Your task to perform on an android device: Open the stopwatch Image 0: 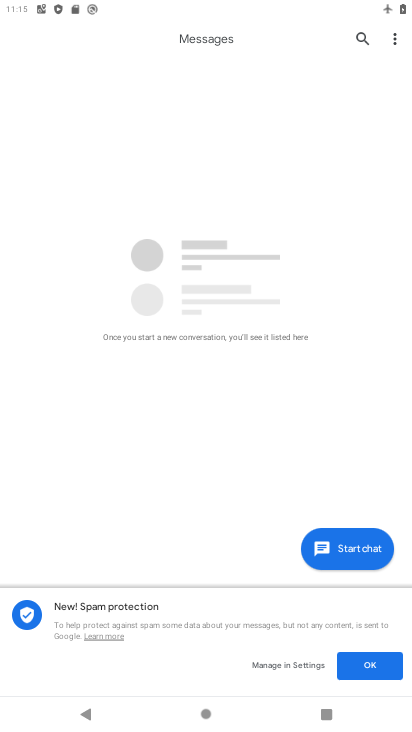
Step 0: press home button
Your task to perform on an android device: Open the stopwatch Image 1: 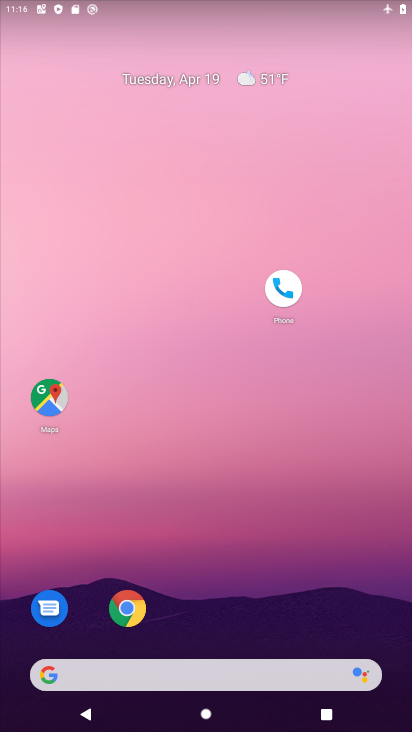
Step 1: drag from (186, 632) to (202, 89)
Your task to perform on an android device: Open the stopwatch Image 2: 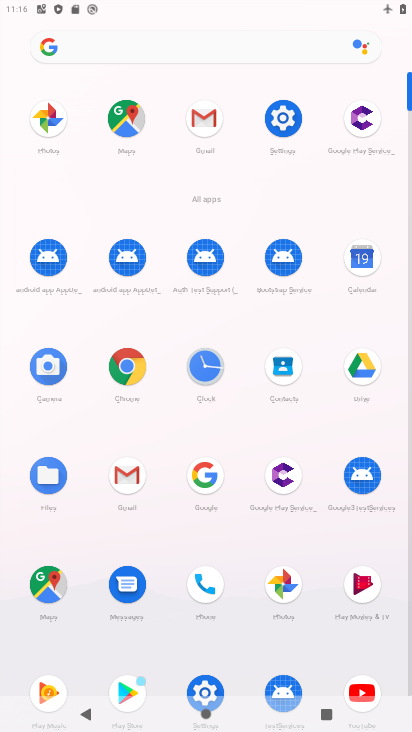
Step 2: click (203, 361)
Your task to perform on an android device: Open the stopwatch Image 3: 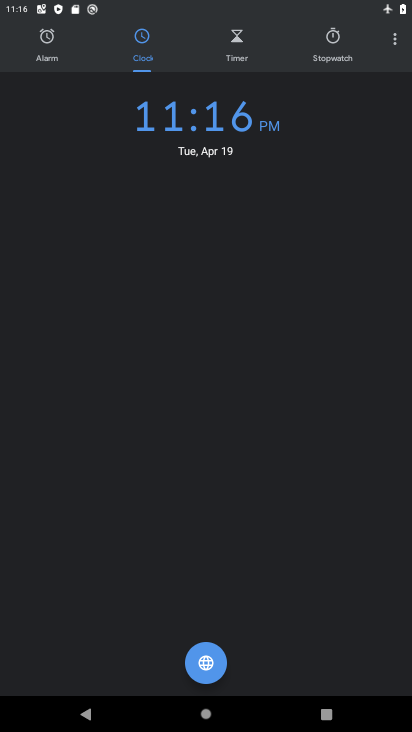
Step 3: click (336, 58)
Your task to perform on an android device: Open the stopwatch Image 4: 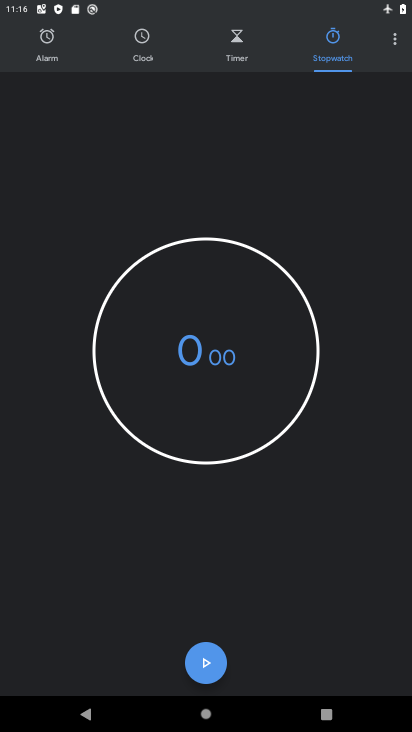
Step 4: task complete